Your task to perform on an android device: open wifi settings Image 0: 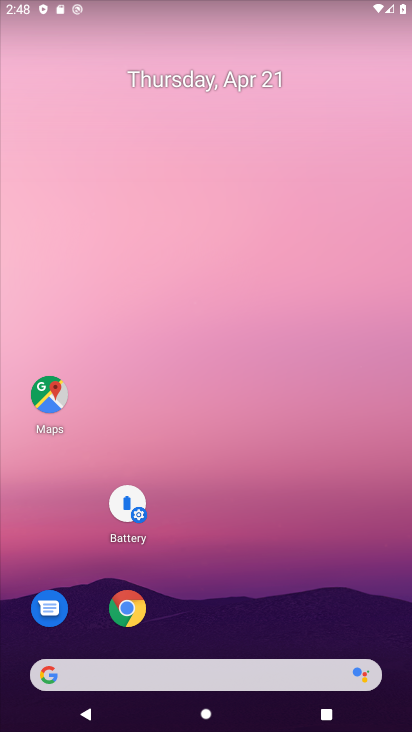
Step 0: drag from (232, 540) to (241, 38)
Your task to perform on an android device: open wifi settings Image 1: 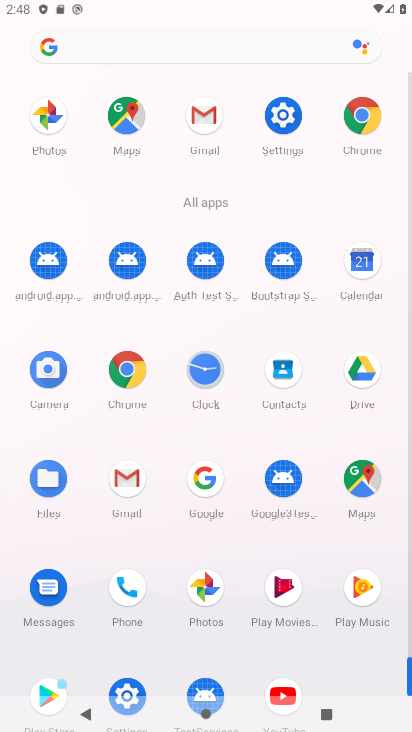
Step 1: click (291, 112)
Your task to perform on an android device: open wifi settings Image 2: 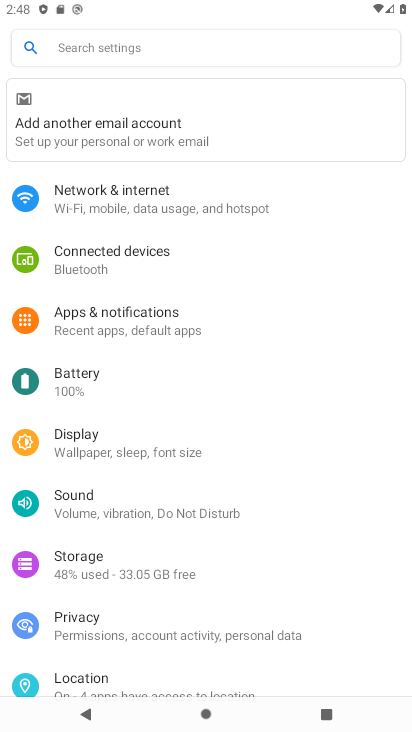
Step 2: click (98, 207)
Your task to perform on an android device: open wifi settings Image 3: 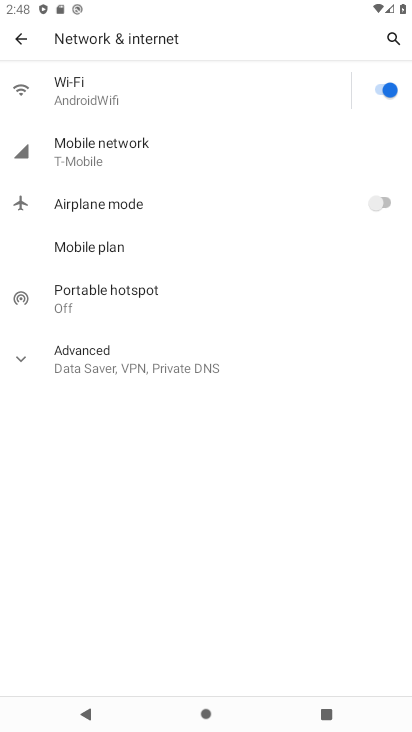
Step 3: click (99, 83)
Your task to perform on an android device: open wifi settings Image 4: 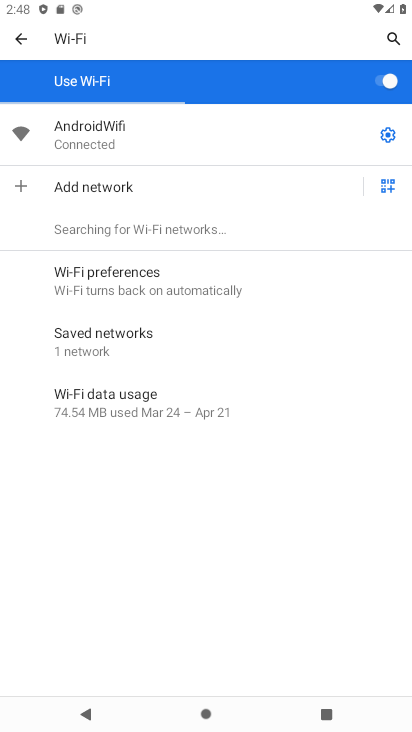
Step 4: task complete